Your task to perform on an android device: Open Google Chrome and click the shortcut for Amazon.com Image 0: 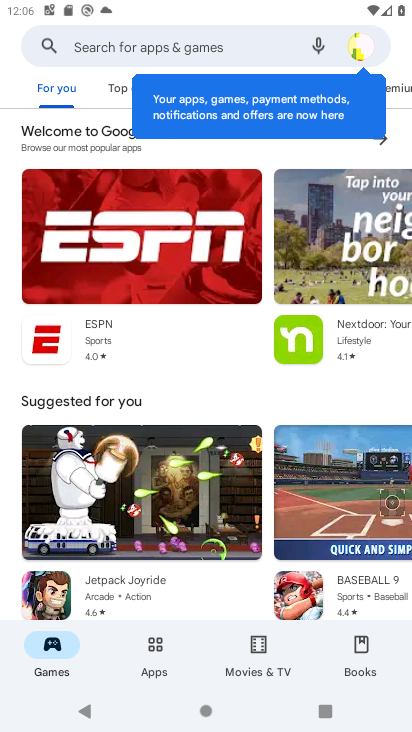
Step 0: press home button
Your task to perform on an android device: Open Google Chrome and click the shortcut for Amazon.com Image 1: 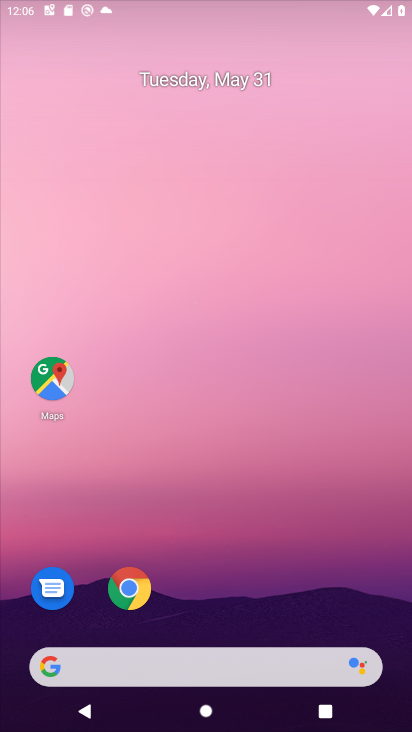
Step 1: drag from (232, 680) to (162, 79)
Your task to perform on an android device: Open Google Chrome and click the shortcut for Amazon.com Image 2: 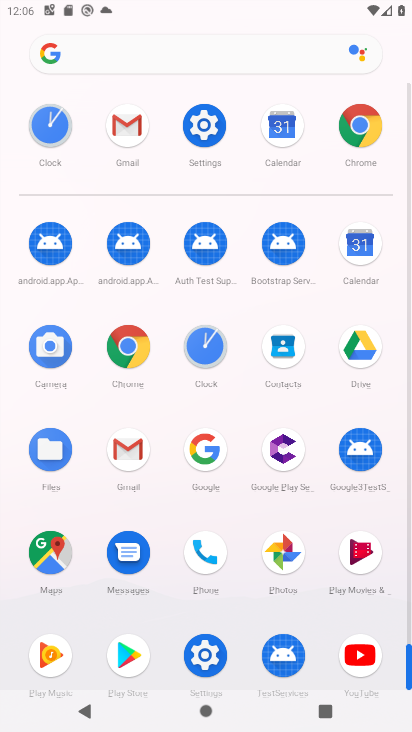
Step 2: click (132, 357)
Your task to perform on an android device: Open Google Chrome and click the shortcut for Amazon.com Image 3: 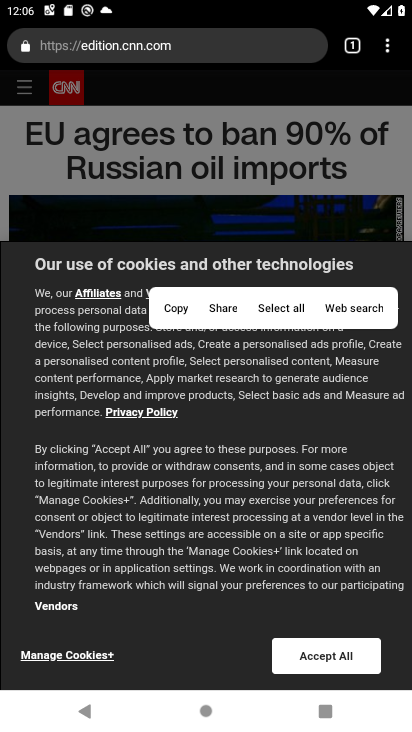
Step 3: click (383, 44)
Your task to perform on an android device: Open Google Chrome and click the shortcut for Amazon.com Image 4: 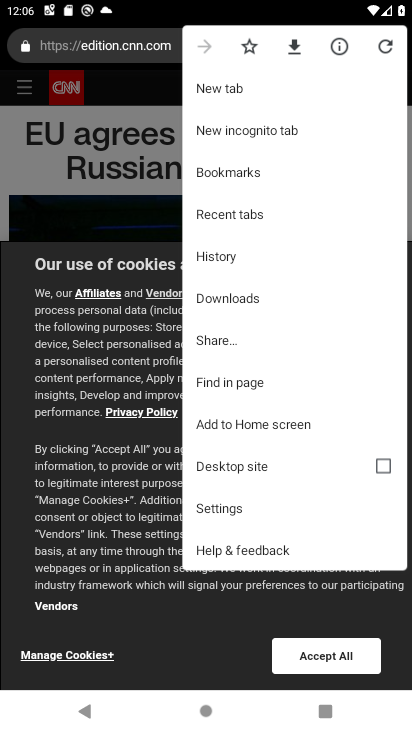
Step 4: drag from (318, 507) to (326, 191)
Your task to perform on an android device: Open Google Chrome and click the shortcut for Amazon.com Image 5: 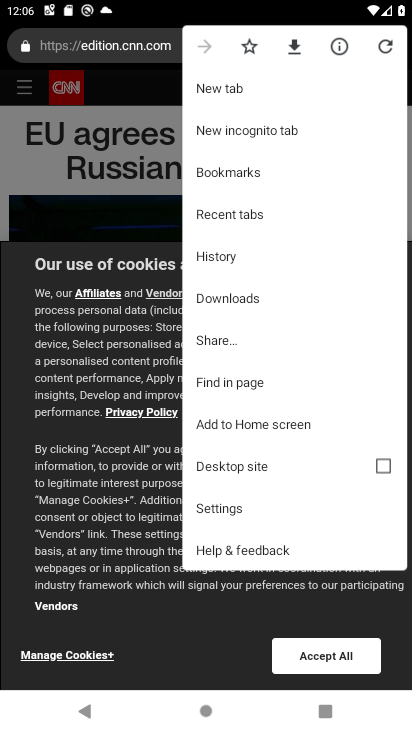
Step 5: click (250, 500)
Your task to perform on an android device: Open Google Chrome and click the shortcut for Amazon.com Image 6: 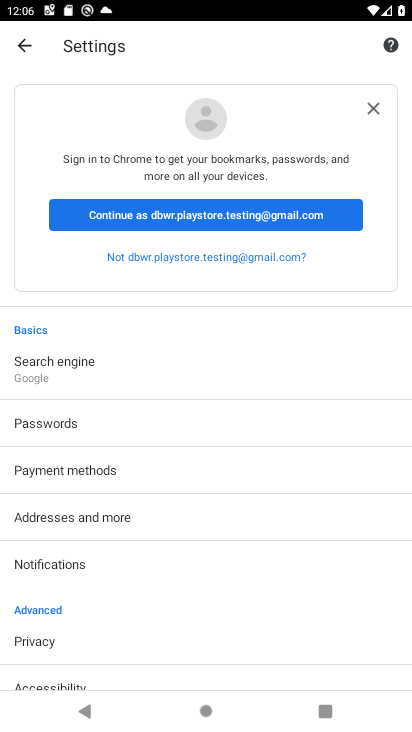
Step 6: press back button
Your task to perform on an android device: Open Google Chrome and click the shortcut for Amazon.com Image 7: 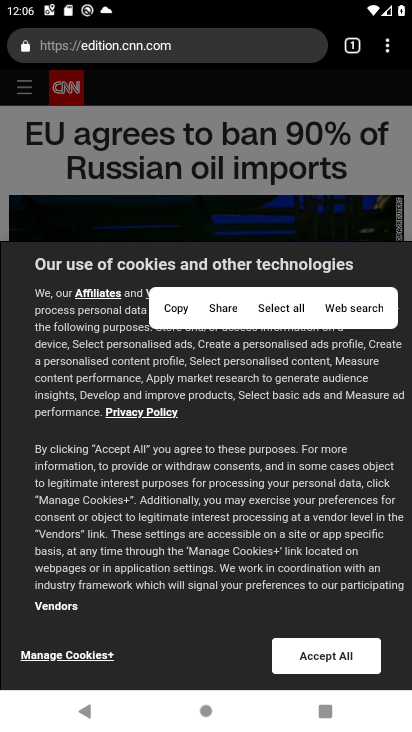
Step 7: press home button
Your task to perform on an android device: Open Google Chrome and click the shortcut for Amazon.com Image 8: 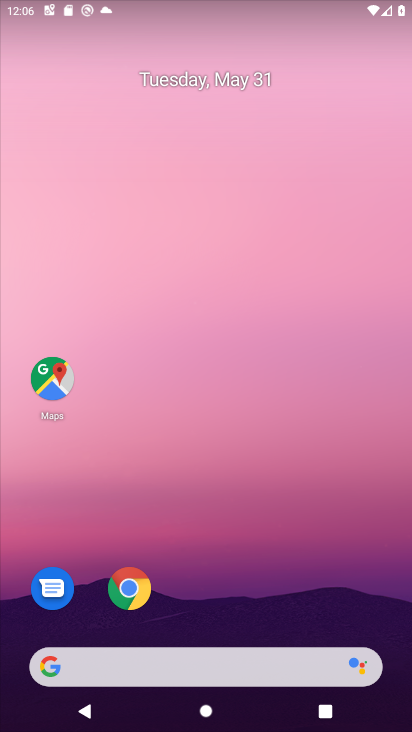
Step 8: drag from (339, 680) to (409, 484)
Your task to perform on an android device: Open Google Chrome and click the shortcut for Amazon.com Image 9: 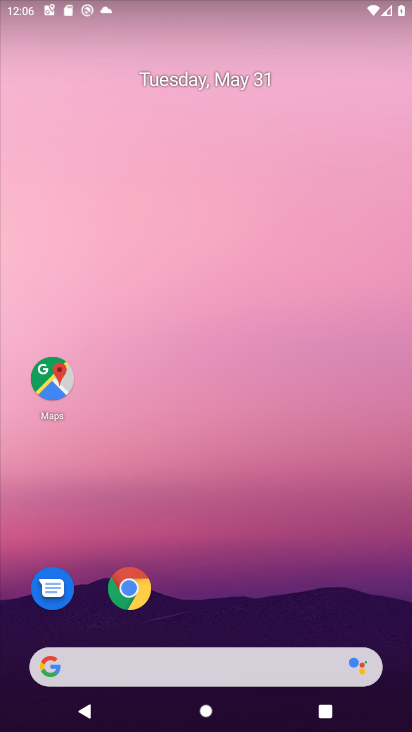
Step 9: drag from (249, 624) to (237, 0)
Your task to perform on an android device: Open Google Chrome and click the shortcut for Amazon.com Image 10: 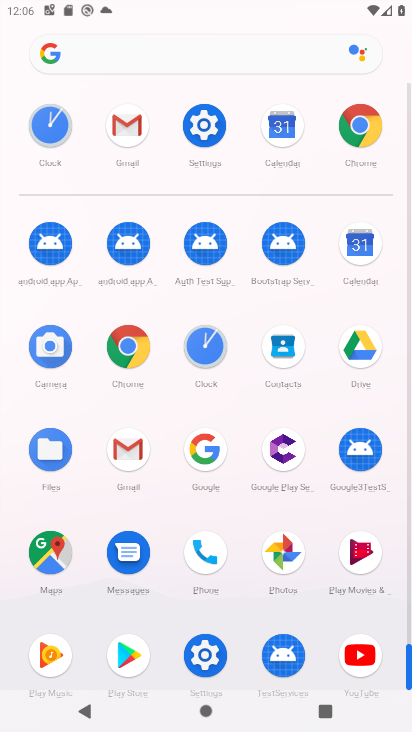
Step 10: click (104, 361)
Your task to perform on an android device: Open Google Chrome and click the shortcut for Amazon.com Image 11: 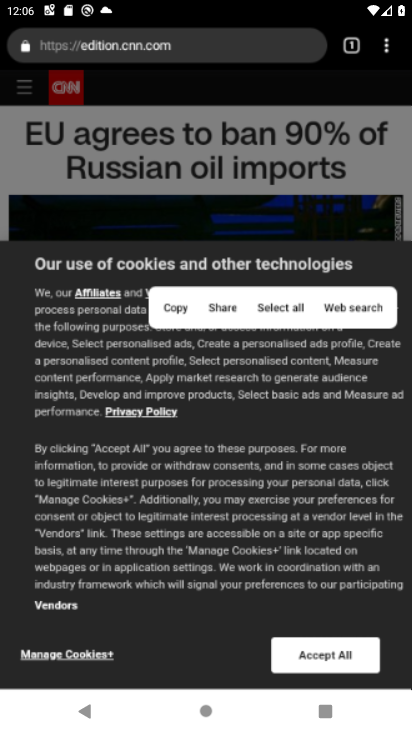
Step 11: drag from (380, 52) to (240, 91)
Your task to perform on an android device: Open Google Chrome and click the shortcut for Amazon.com Image 12: 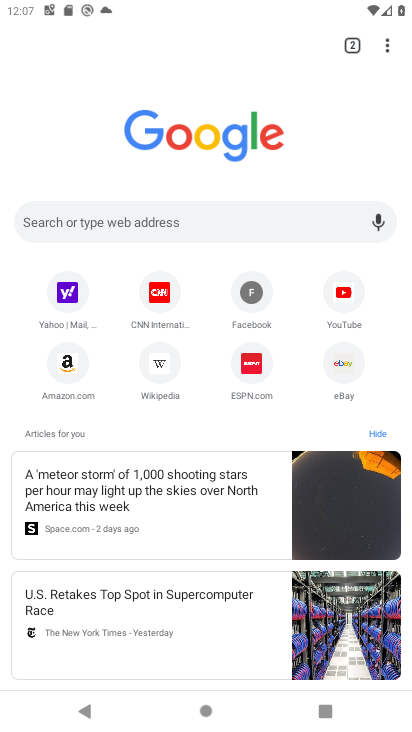
Step 12: click (70, 379)
Your task to perform on an android device: Open Google Chrome and click the shortcut for Amazon.com Image 13: 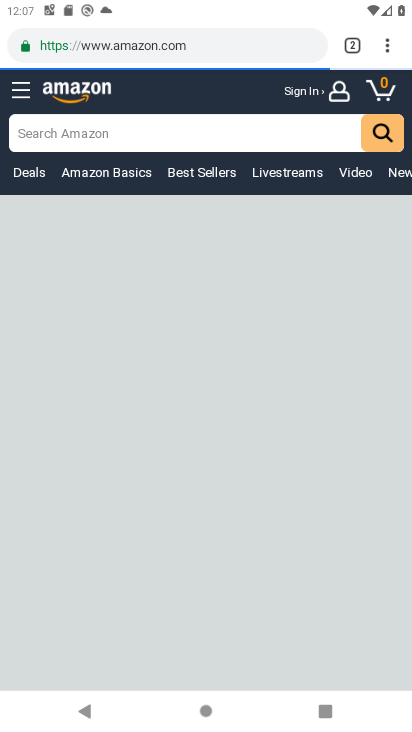
Step 13: click (380, 44)
Your task to perform on an android device: Open Google Chrome and click the shortcut for Amazon.com Image 14: 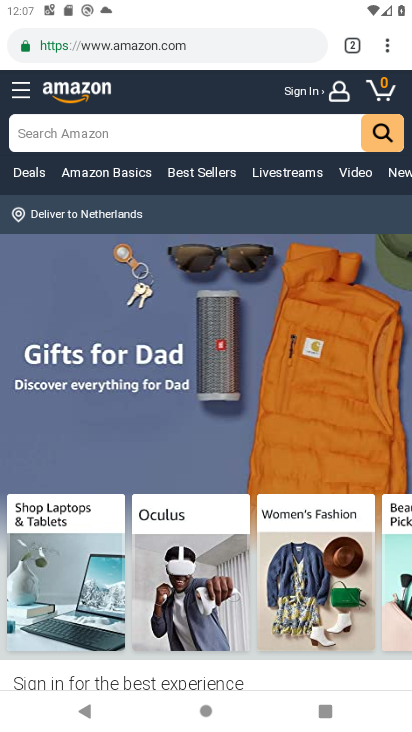
Step 14: drag from (388, 41) to (238, 464)
Your task to perform on an android device: Open Google Chrome and click the shortcut for Amazon.com Image 15: 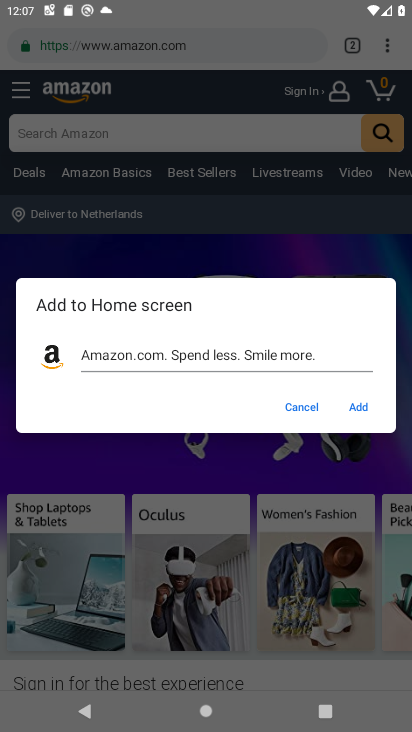
Step 15: click (360, 403)
Your task to perform on an android device: Open Google Chrome and click the shortcut for Amazon.com Image 16: 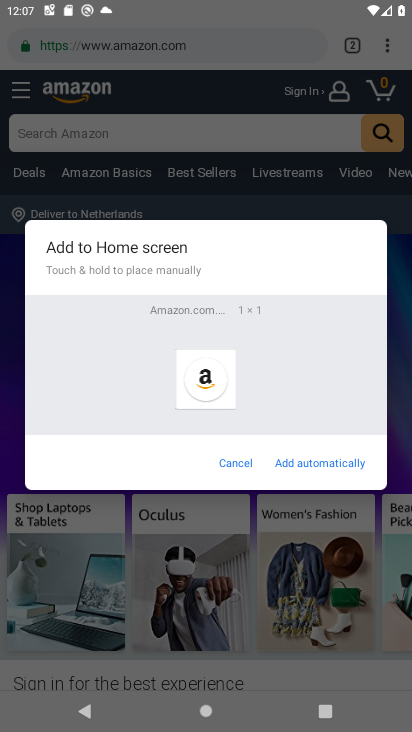
Step 16: click (340, 472)
Your task to perform on an android device: Open Google Chrome and click the shortcut for Amazon.com Image 17: 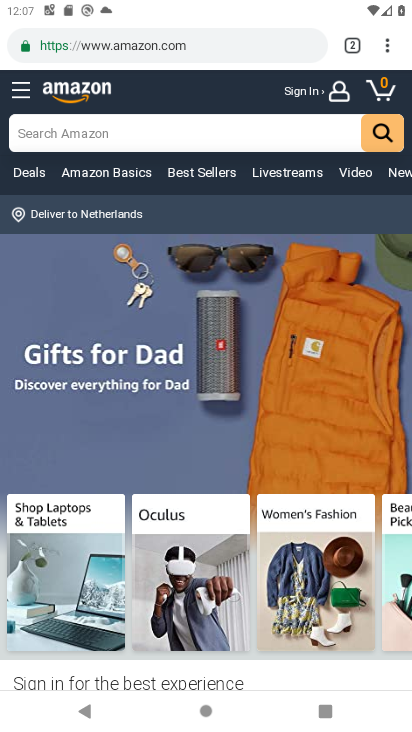
Step 17: task complete